Your task to perform on an android device: Search for flights from Tokyo to Mexico city Image 0: 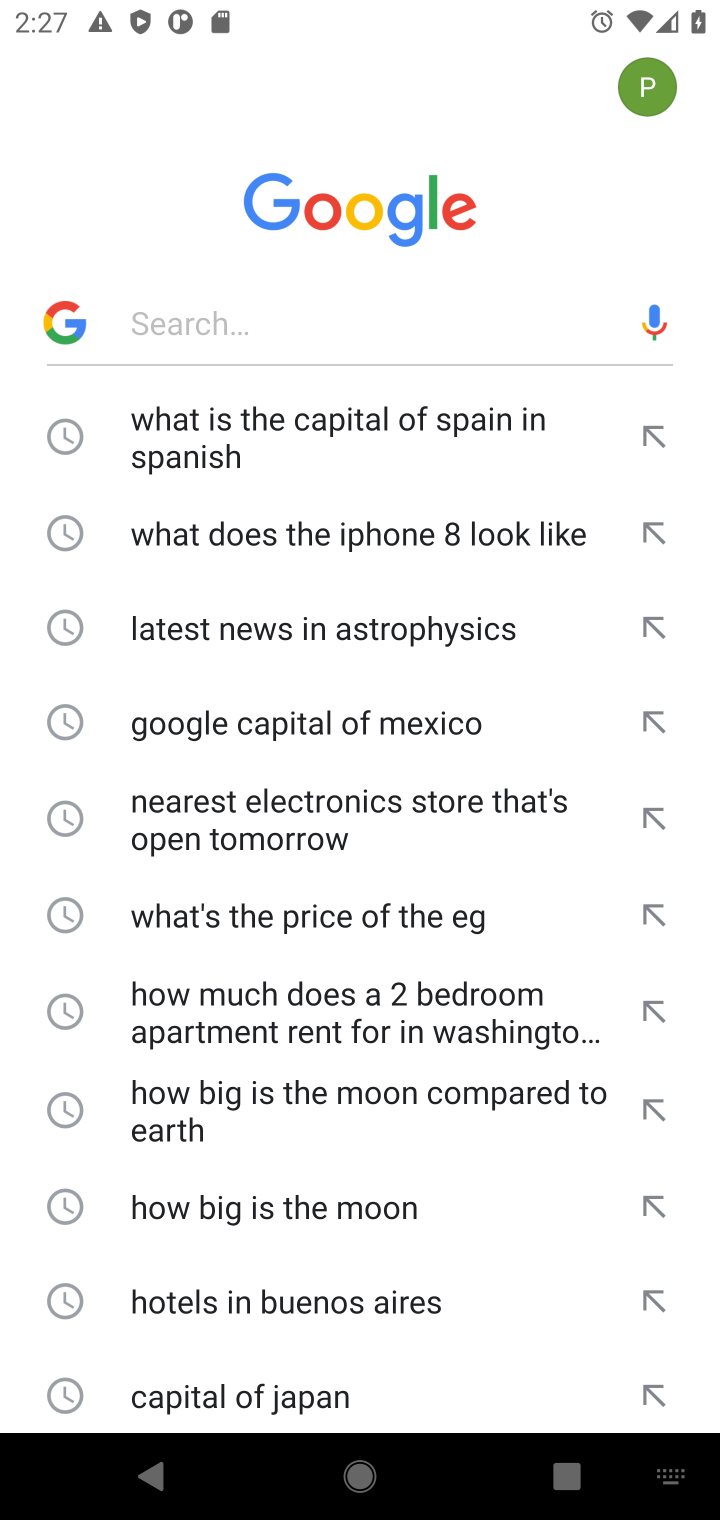
Step 0: click (385, 333)
Your task to perform on an android device: Search for flights from Tokyo to Mexico city Image 1: 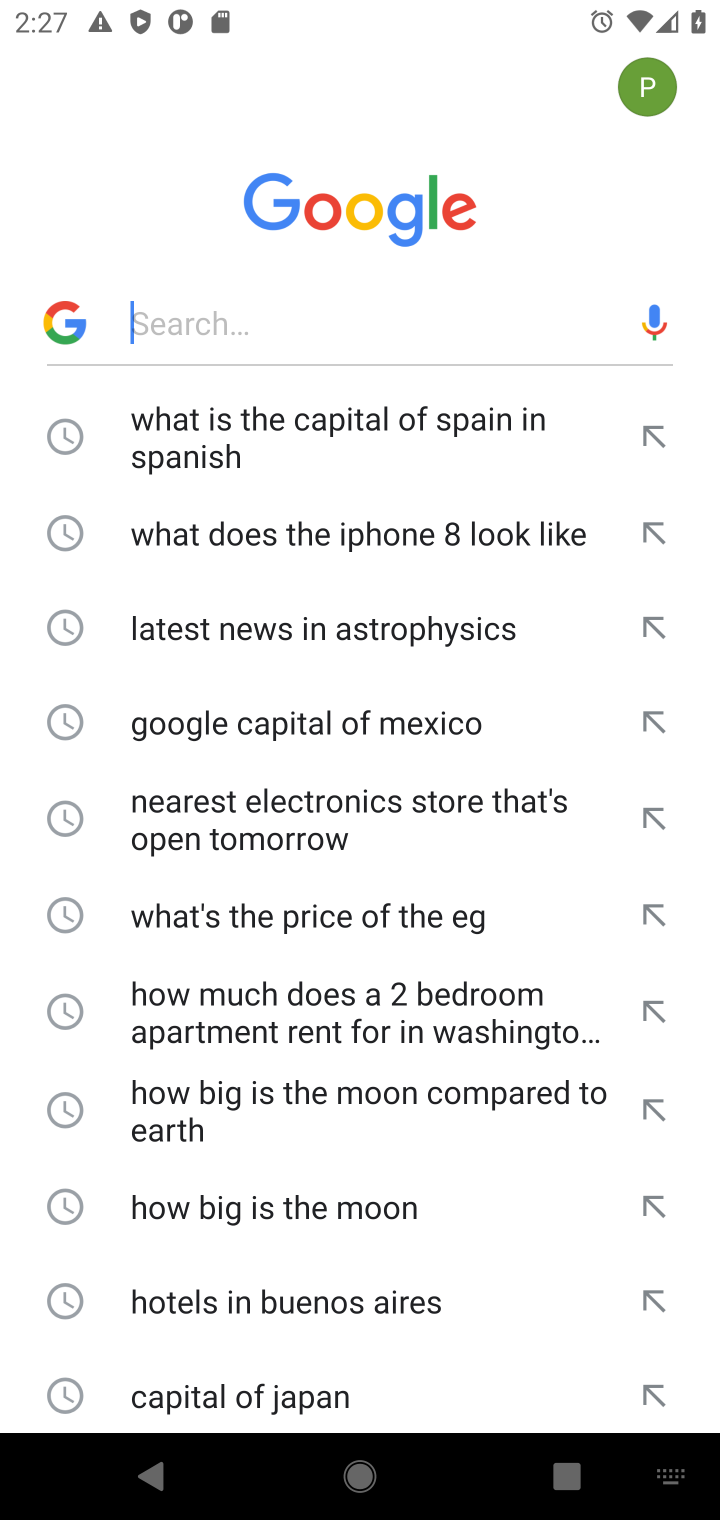
Step 1: type "flights from Tokyo to Mexico city"
Your task to perform on an android device: Search for flights from Tokyo to Mexico city Image 2: 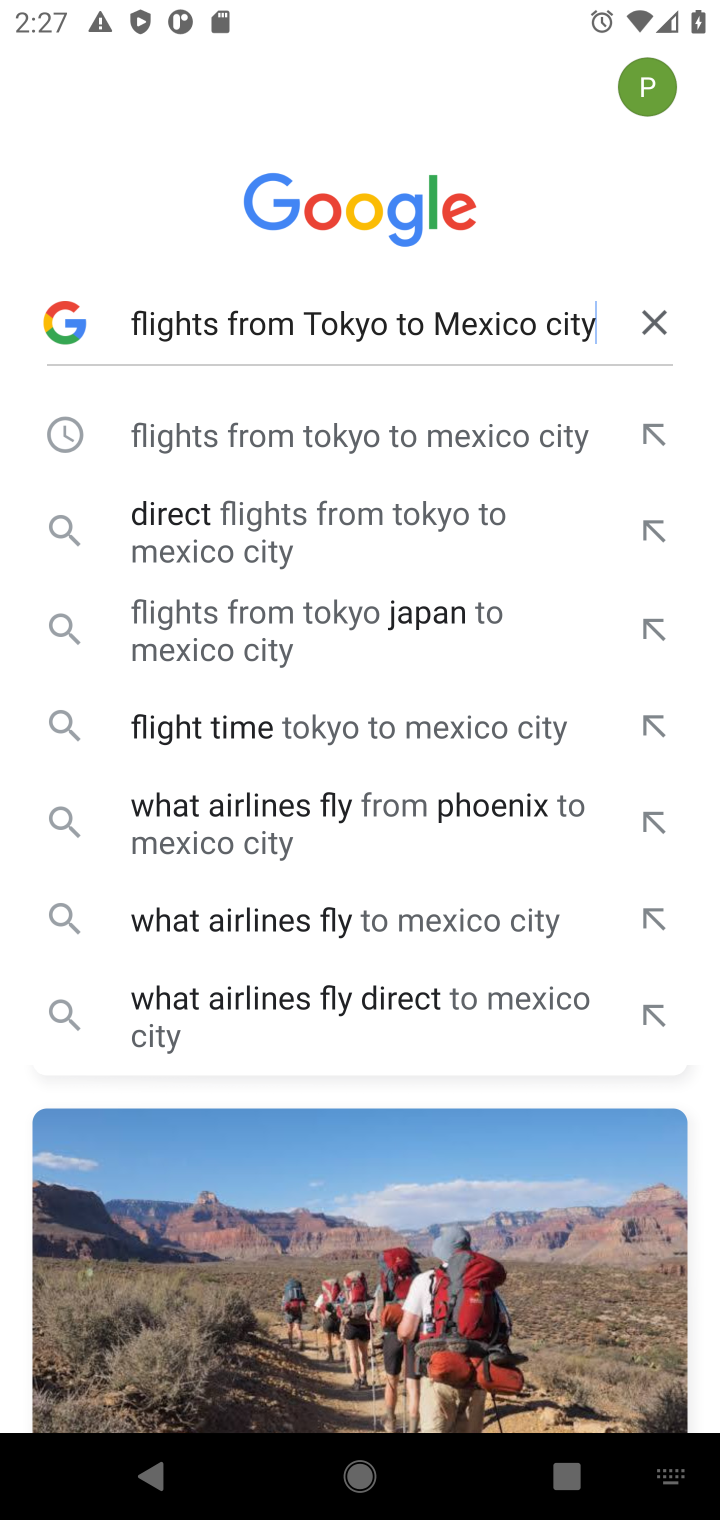
Step 2: press enter
Your task to perform on an android device: Search for flights from Tokyo to Mexico city Image 3: 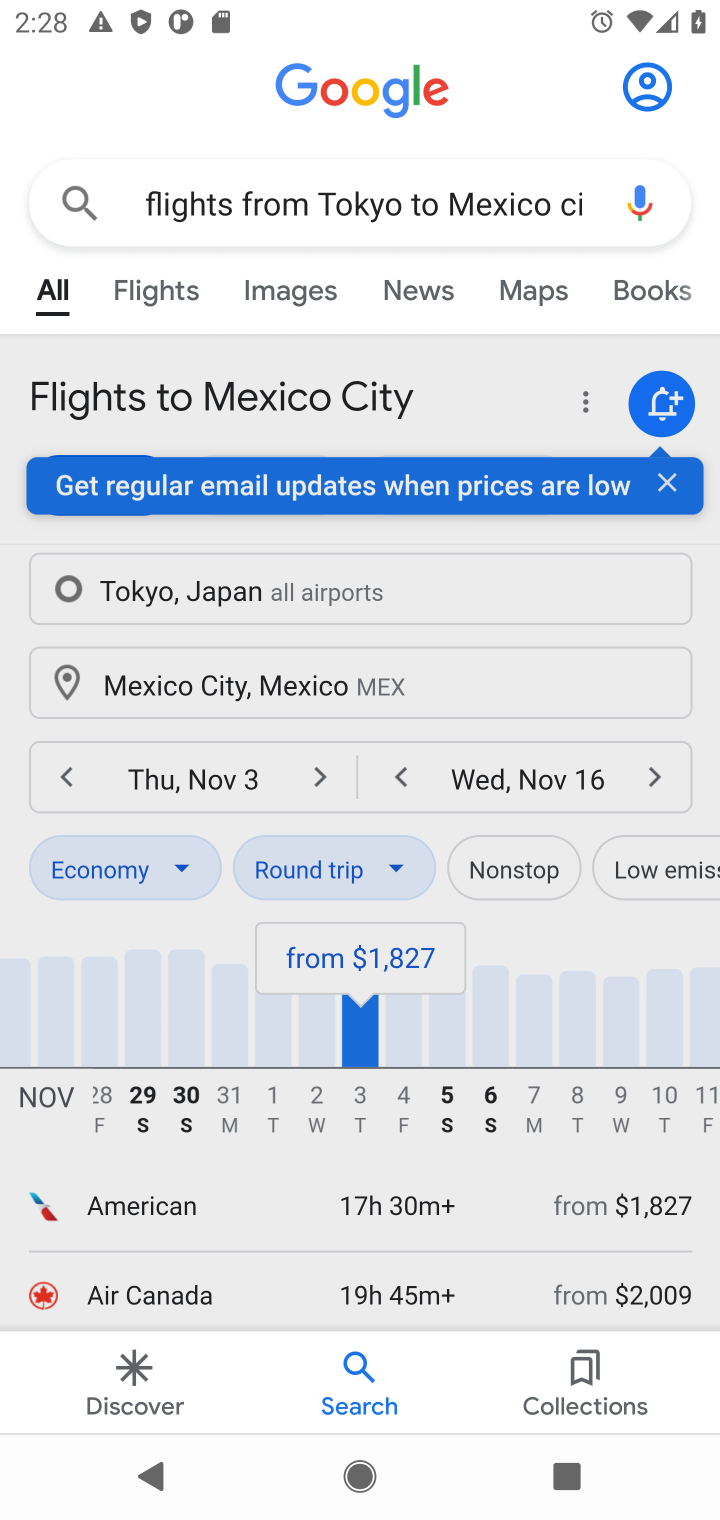
Step 3: drag from (267, 993) to (294, 168)
Your task to perform on an android device: Search for flights from Tokyo to Mexico city Image 4: 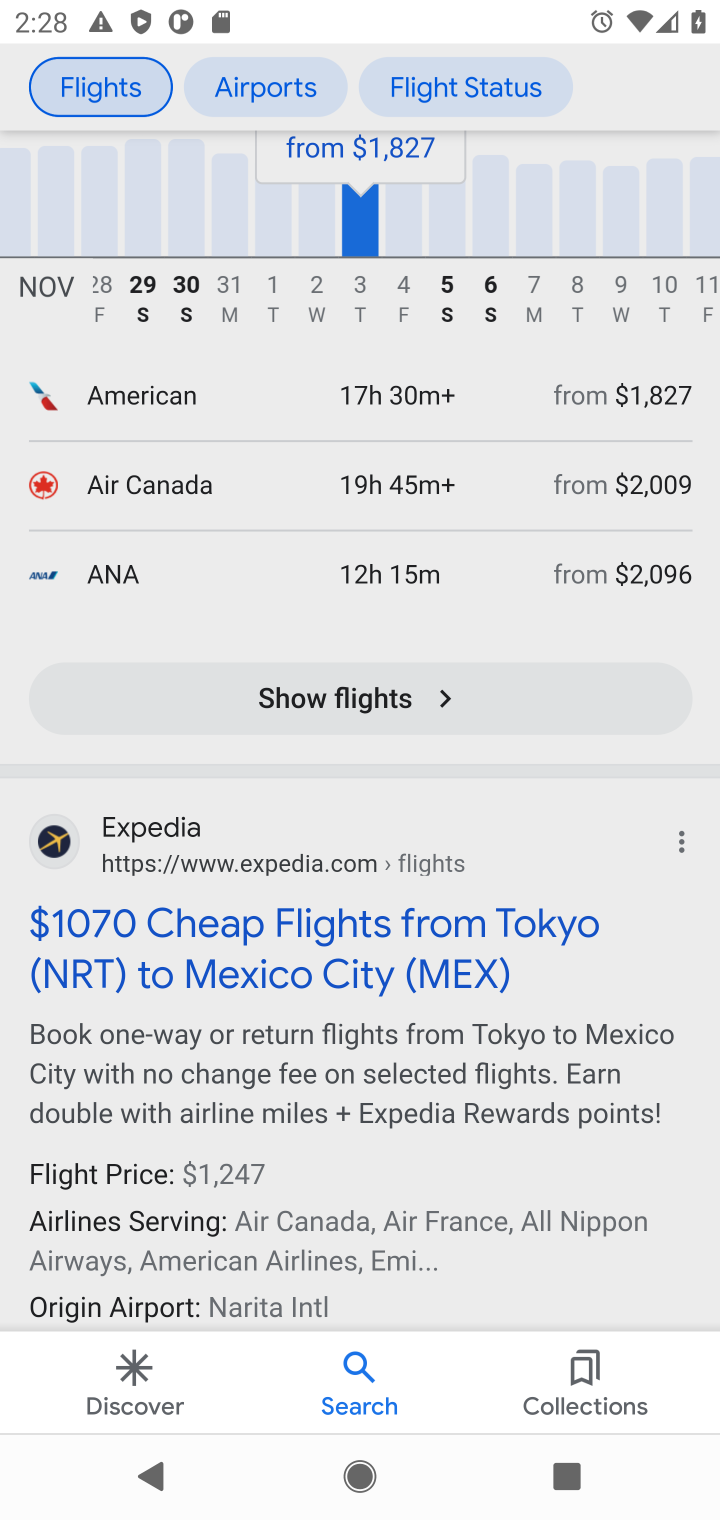
Step 4: click (422, 1136)
Your task to perform on an android device: Search for flights from Tokyo to Mexico city Image 5: 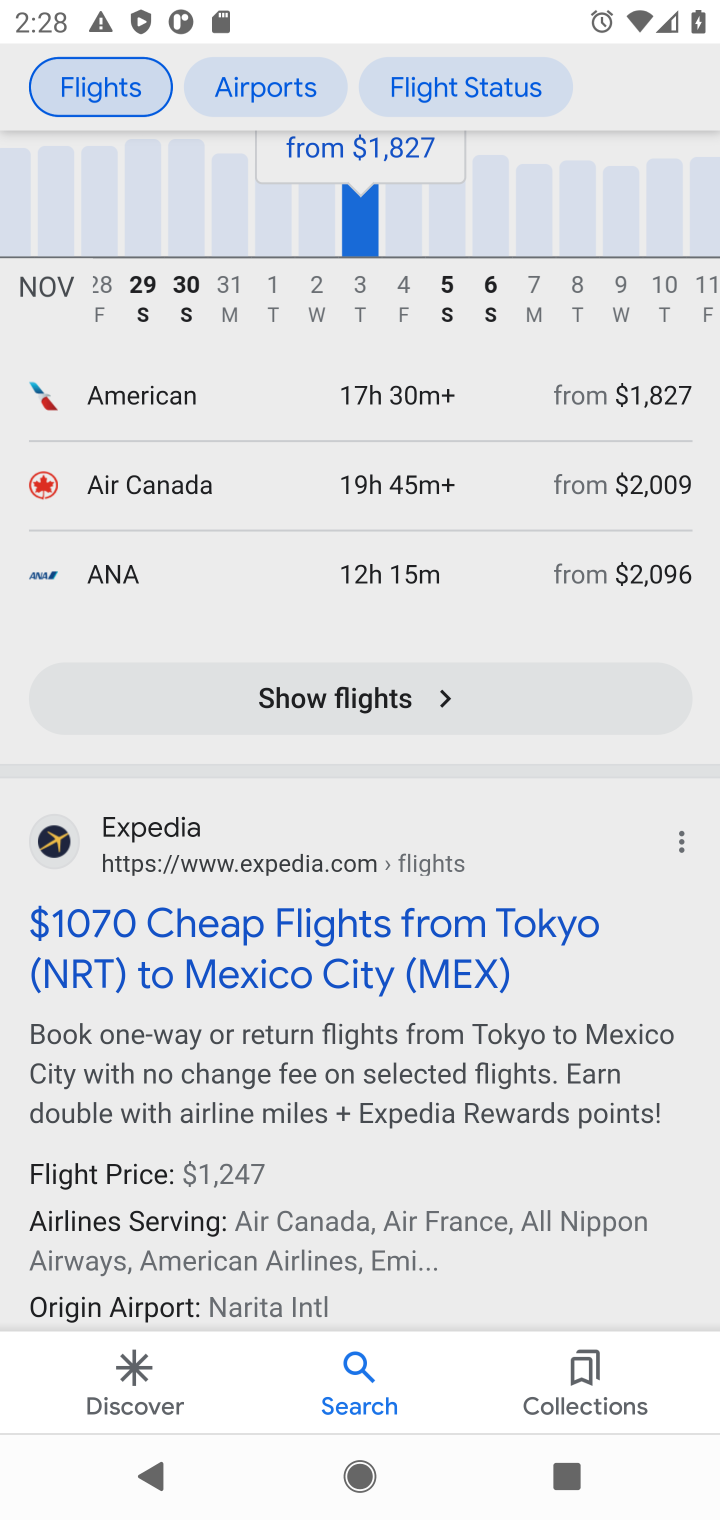
Step 5: click (368, 695)
Your task to perform on an android device: Search for flights from Tokyo to Mexico city Image 6: 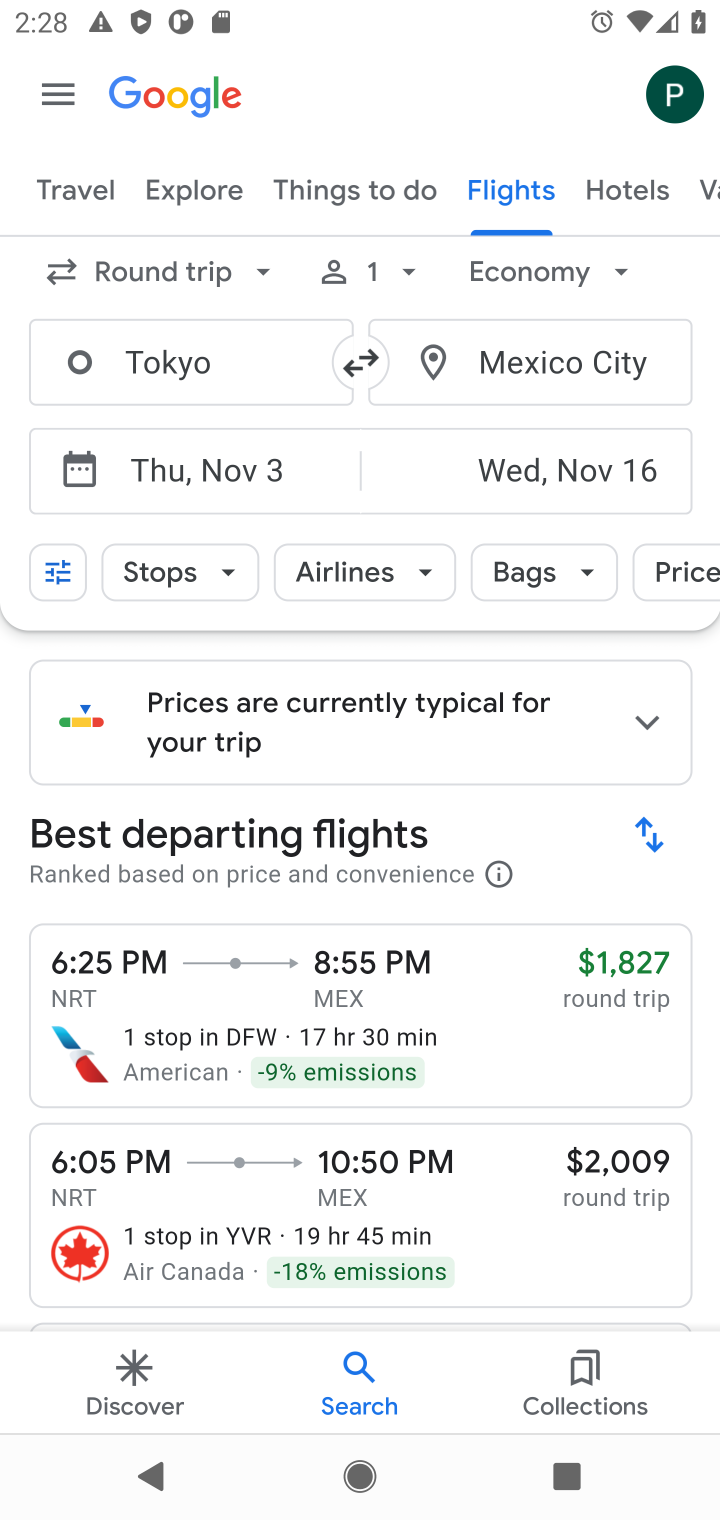
Step 6: task complete